Your task to perform on an android device: Go to internet settings Image 0: 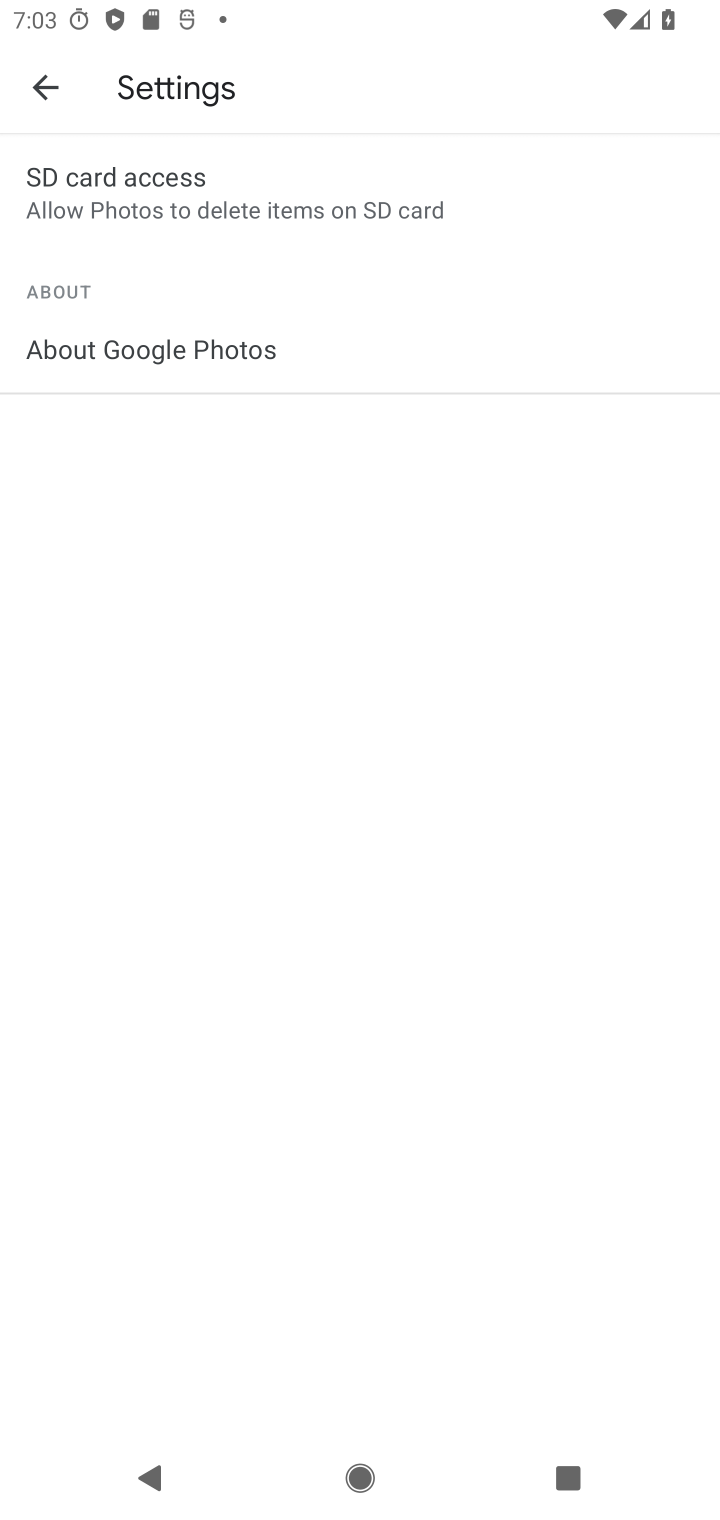
Step 0: press home button
Your task to perform on an android device: Go to internet settings Image 1: 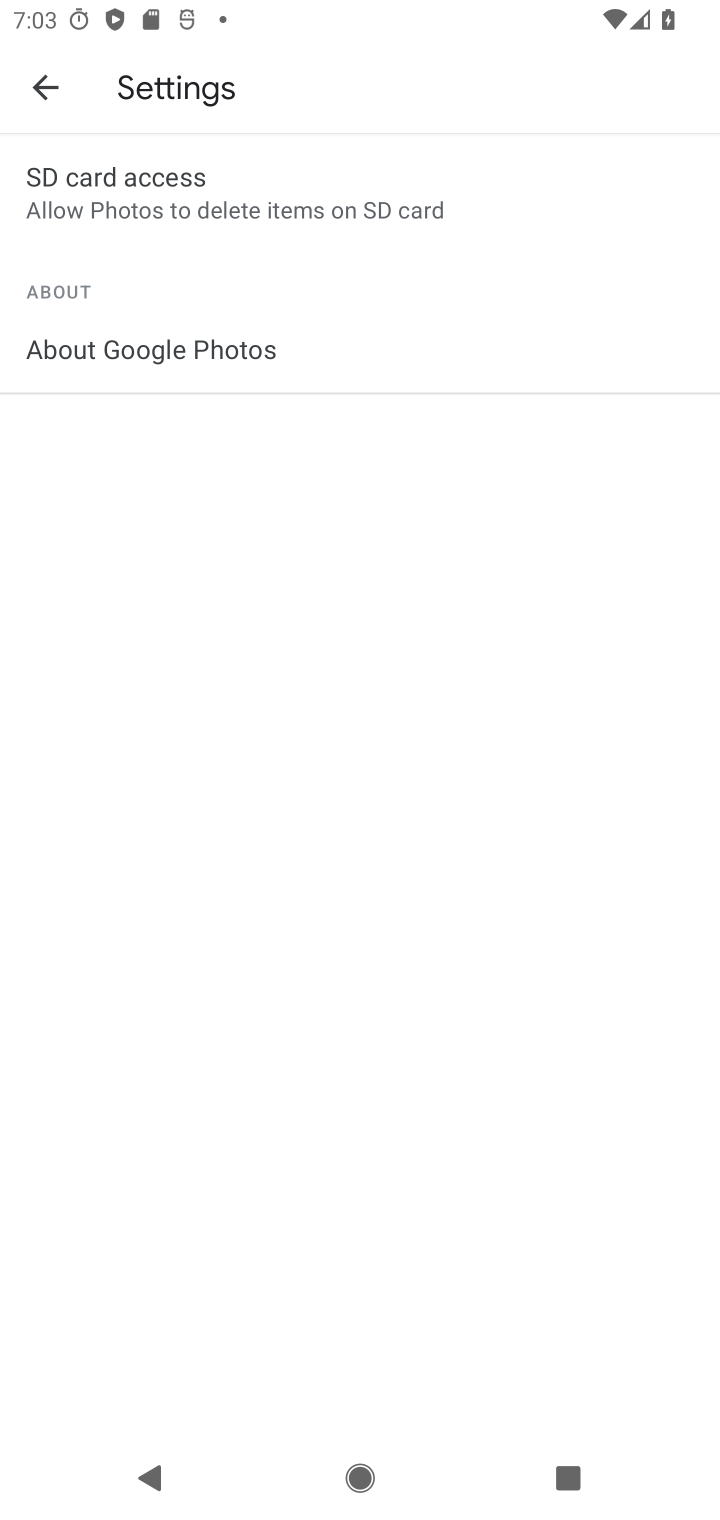
Step 1: press home button
Your task to perform on an android device: Go to internet settings Image 2: 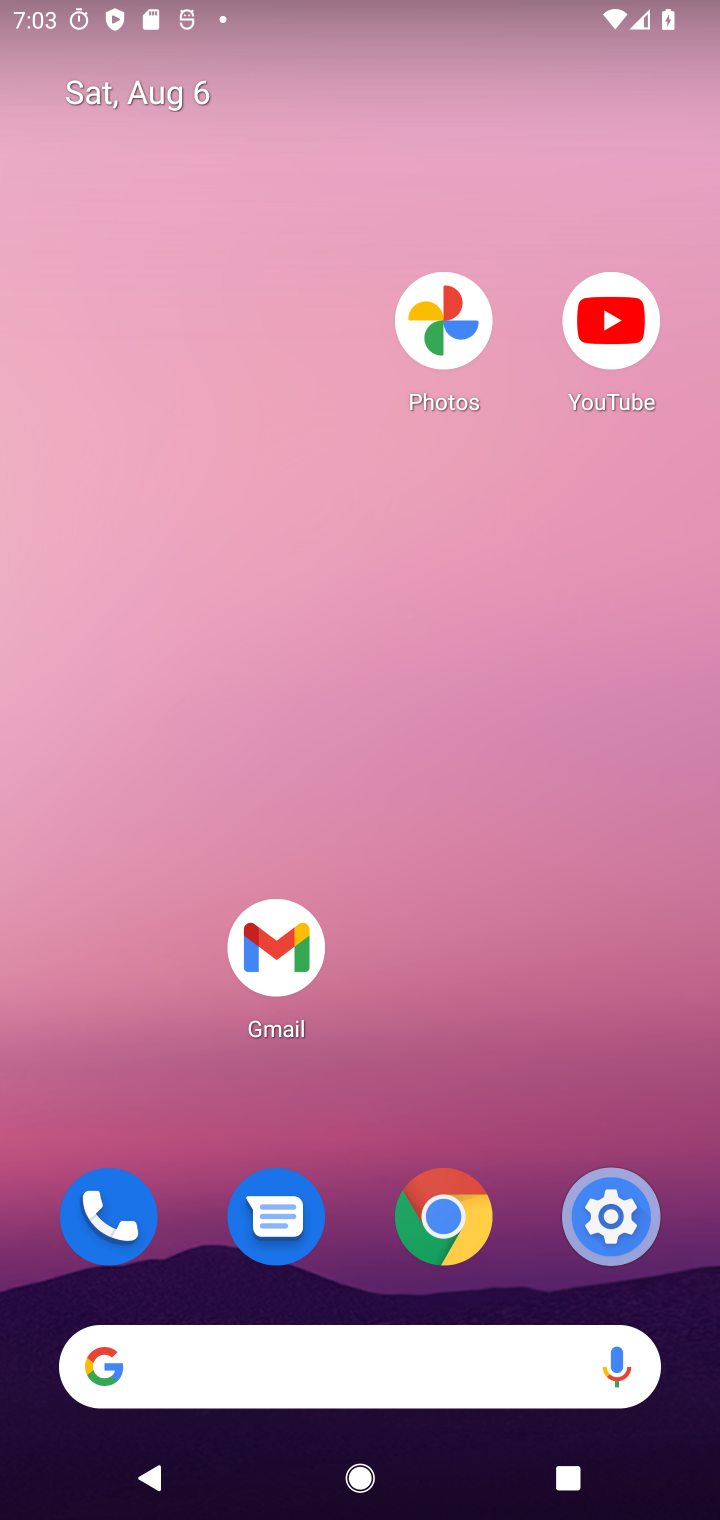
Step 2: drag from (541, 1032) to (586, 30)
Your task to perform on an android device: Go to internet settings Image 3: 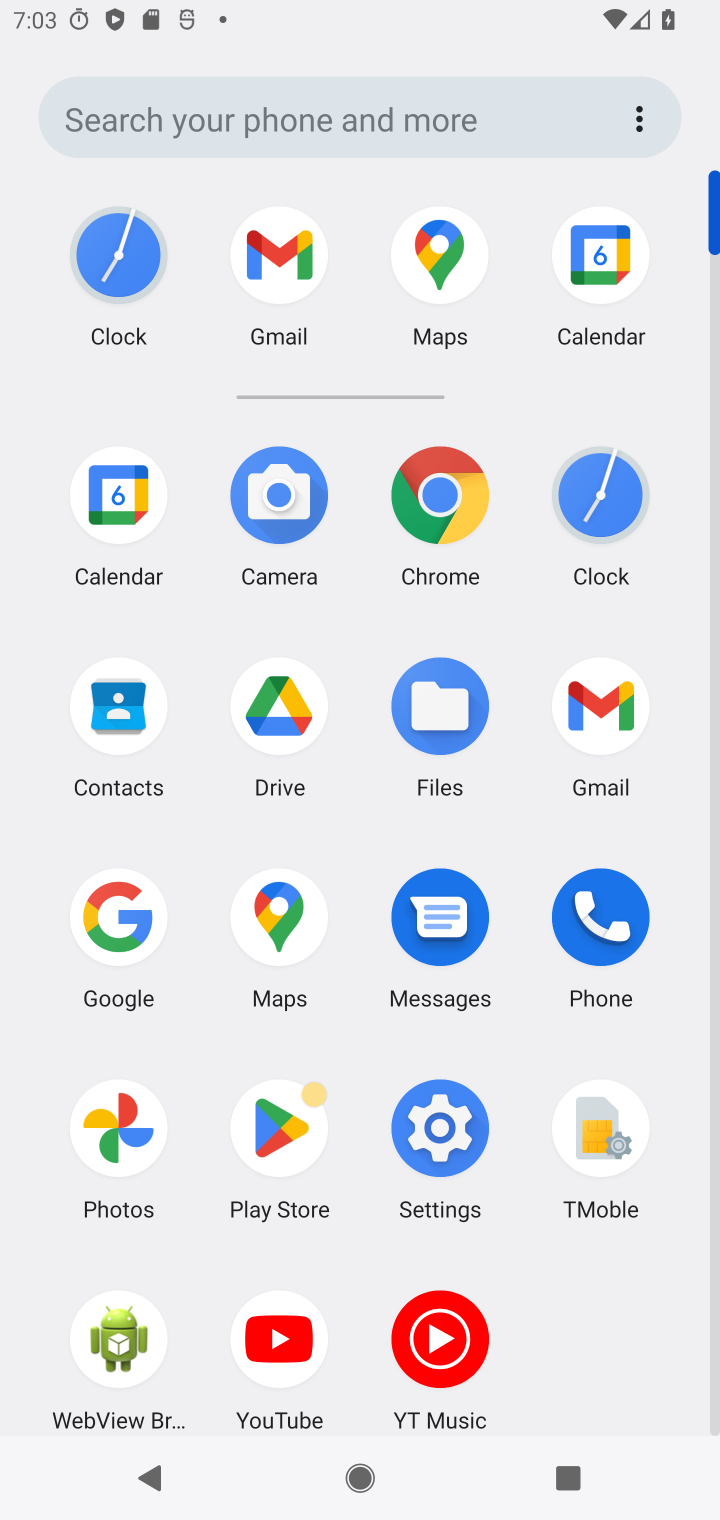
Step 3: click (424, 1098)
Your task to perform on an android device: Go to internet settings Image 4: 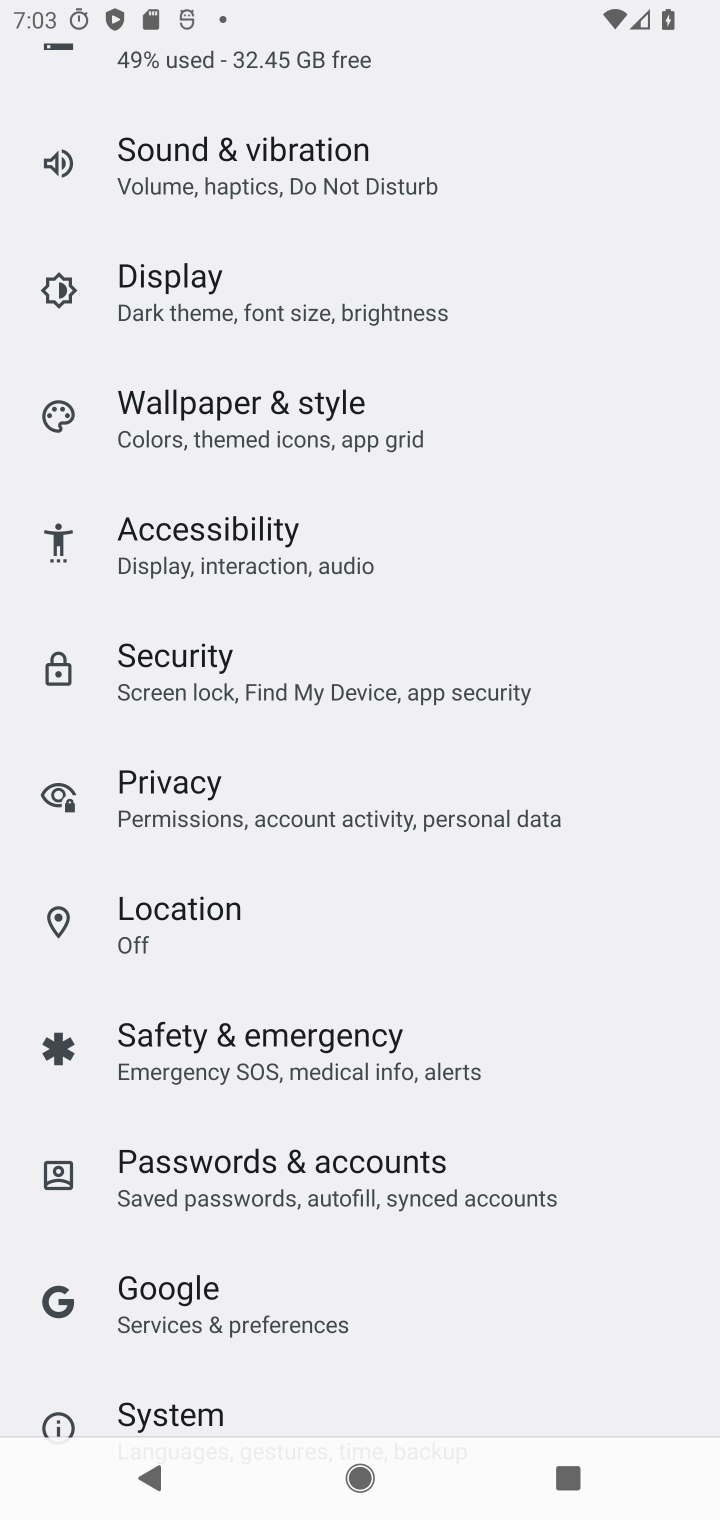
Step 4: drag from (465, 258) to (363, 1141)
Your task to perform on an android device: Go to internet settings Image 5: 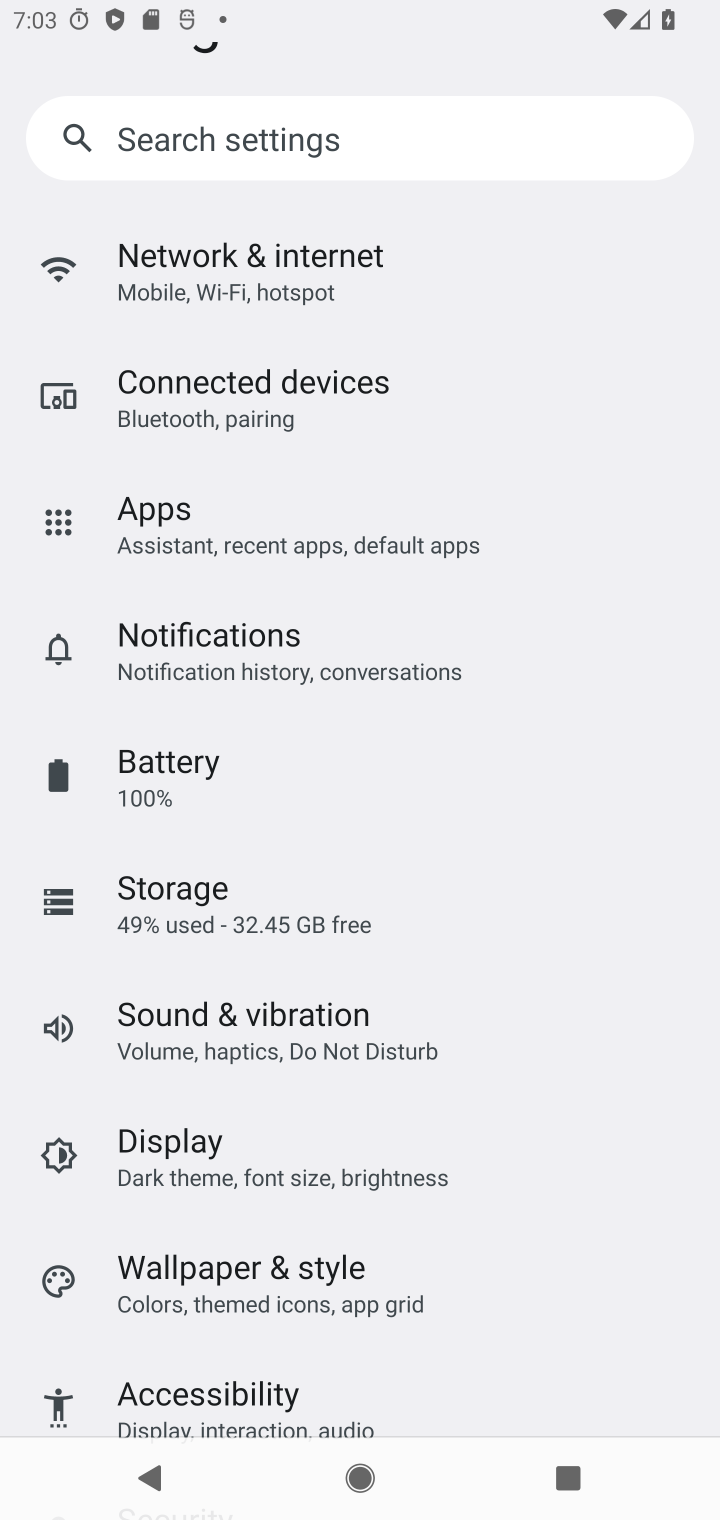
Step 5: click (312, 300)
Your task to perform on an android device: Go to internet settings Image 6: 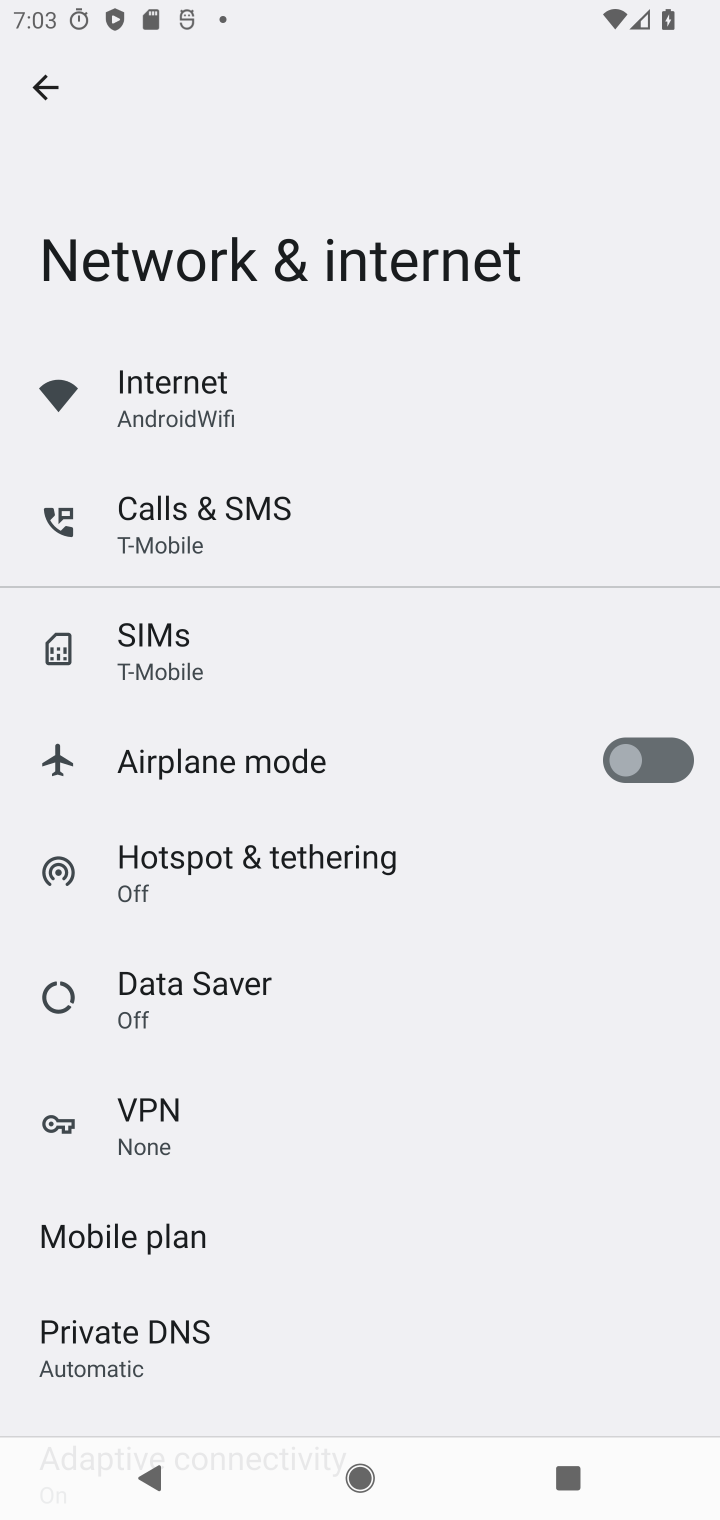
Step 6: click (220, 392)
Your task to perform on an android device: Go to internet settings Image 7: 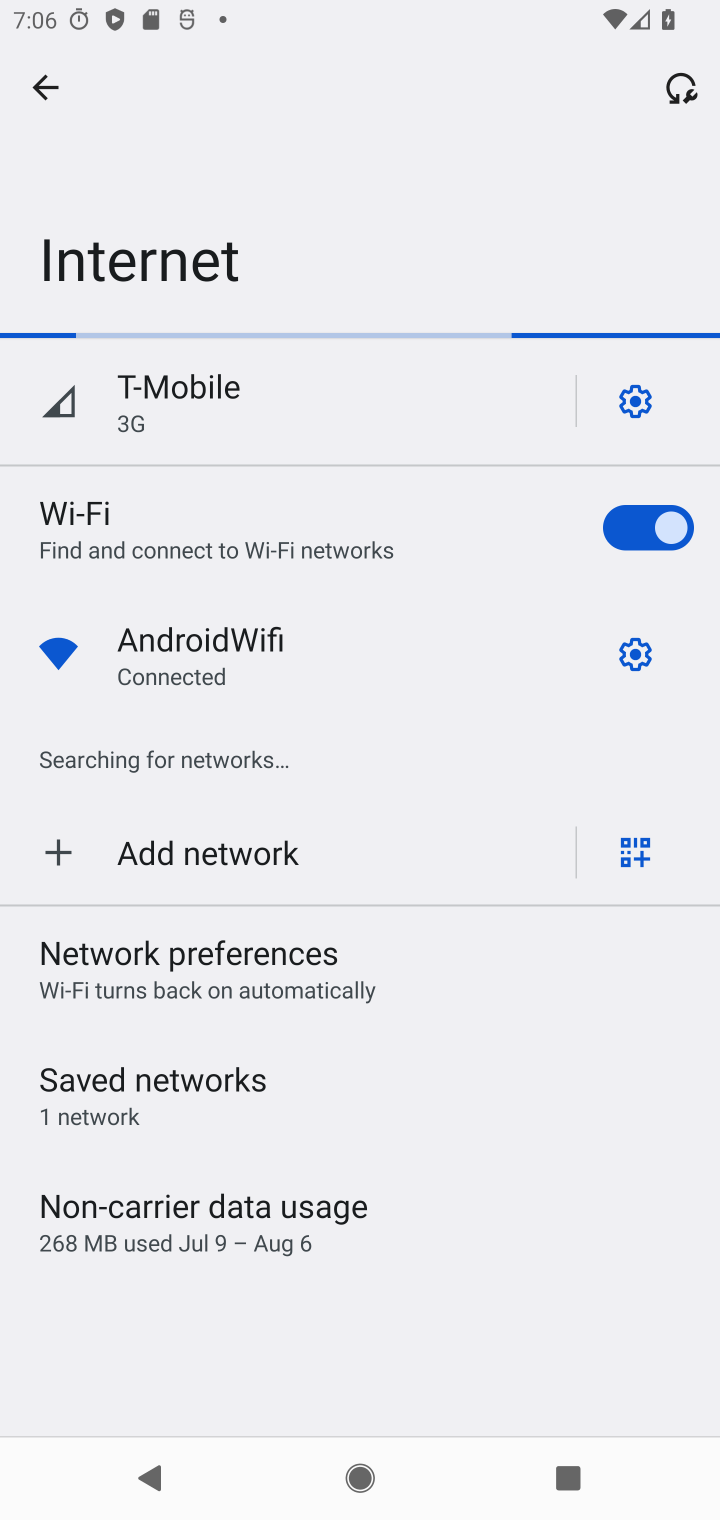
Step 7: task complete